Your task to perform on an android device: Check the weather Image 0: 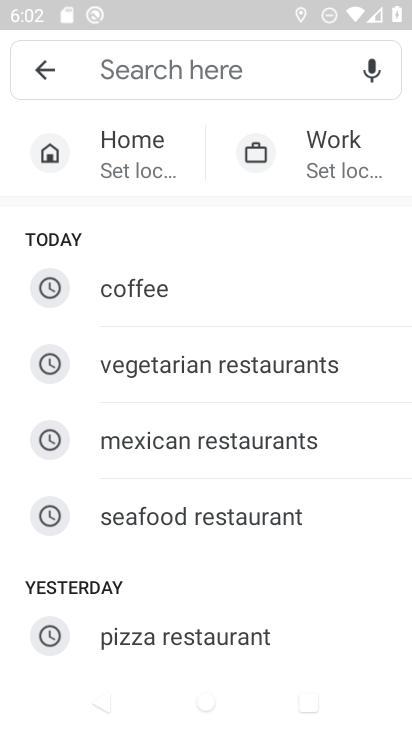
Step 0: press home button
Your task to perform on an android device: Check the weather Image 1: 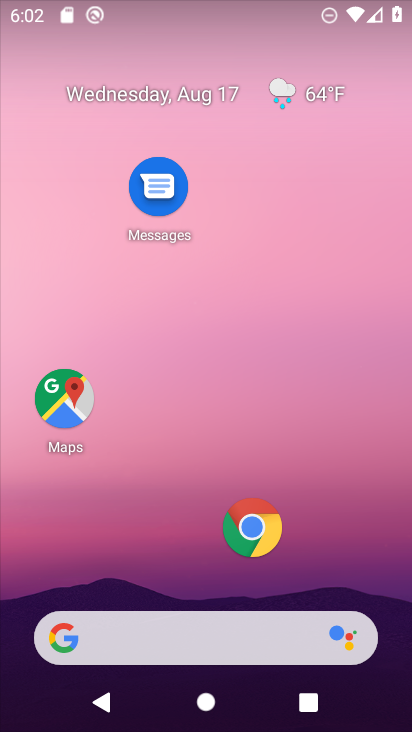
Step 1: drag from (179, 604) to (216, 206)
Your task to perform on an android device: Check the weather Image 2: 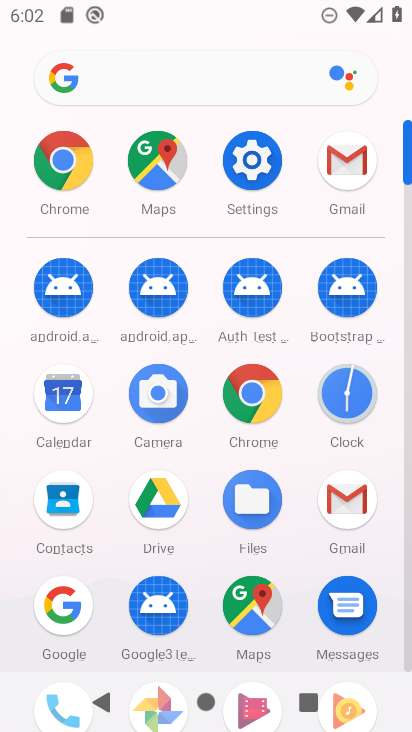
Step 2: click (60, 607)
Your task to perform on an android device: Check the weather Image 3: 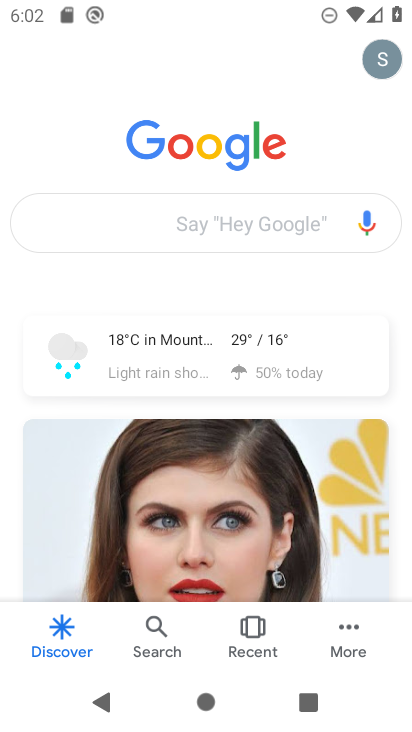
Step 3: click (95, 214)
Your task to perform on an android device: Check the weather Image 4: 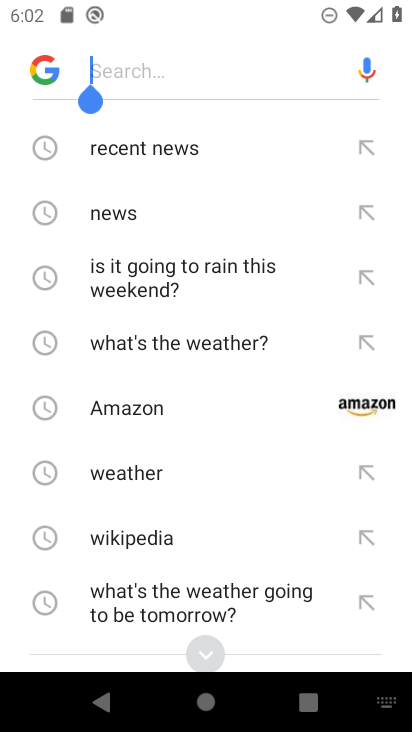
Step 4: click (135, 486)
Your task to perform on an android device: Check the weather Image 5: 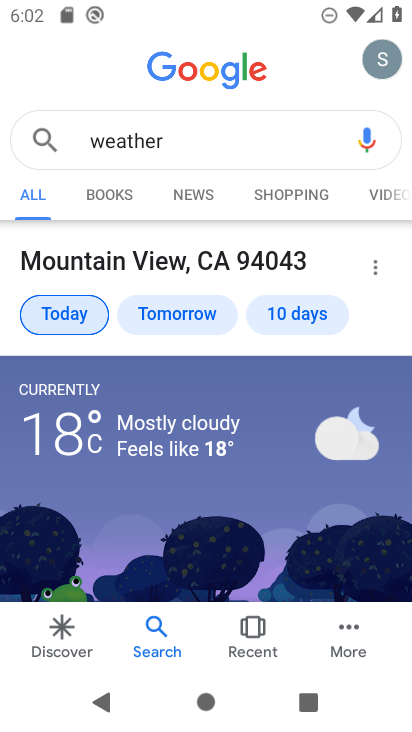
Step 5: task complete